Your task to perform on an android device: change keyboard looks Image 0: 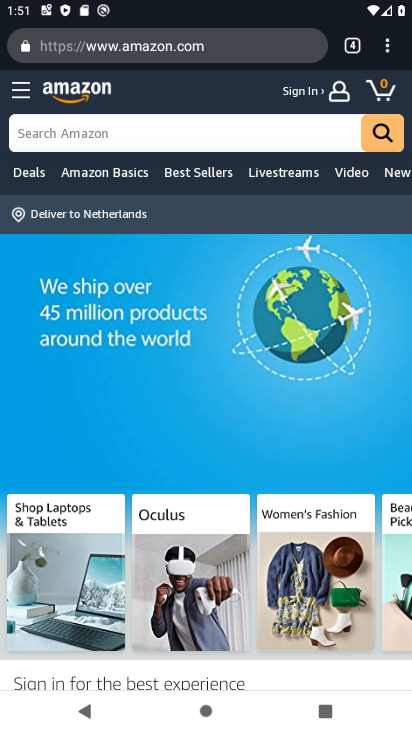
Step 0: press home button
Your task to perform on an android device: change keyboard looks Image 1: 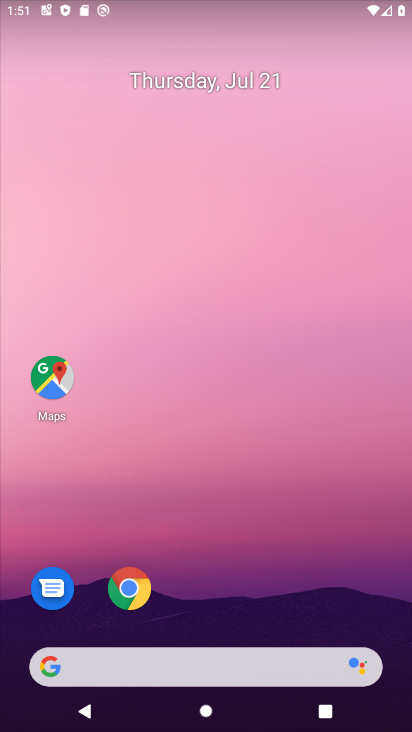
Step 1: drag from (229, 642) to (122, 49)
Your task to perform on an android device: change keyboard looks Image 2: 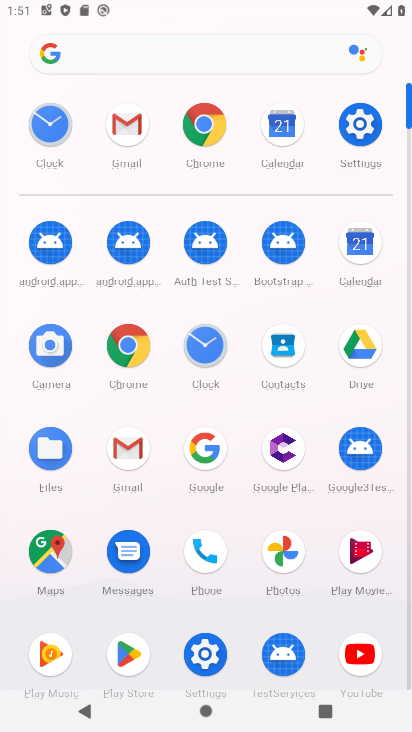
Step 2: click (352, 129)
Your task to perform on an android device: change keyboard looks Image 3: 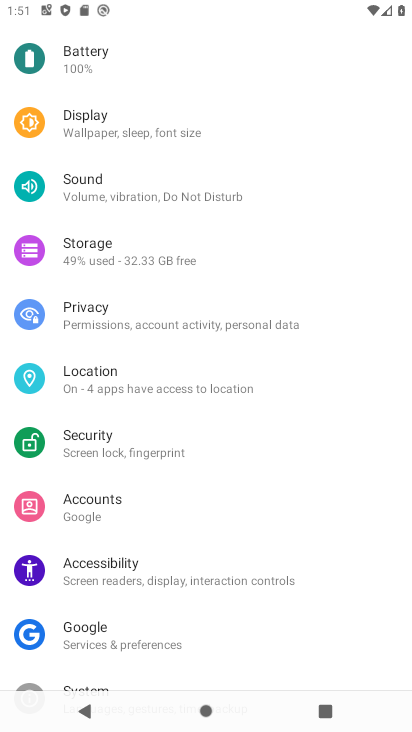
Step 3: drag from (176, 543) to (136, 85)
Your task to perform on an android device: change keyboard looks Image 4: 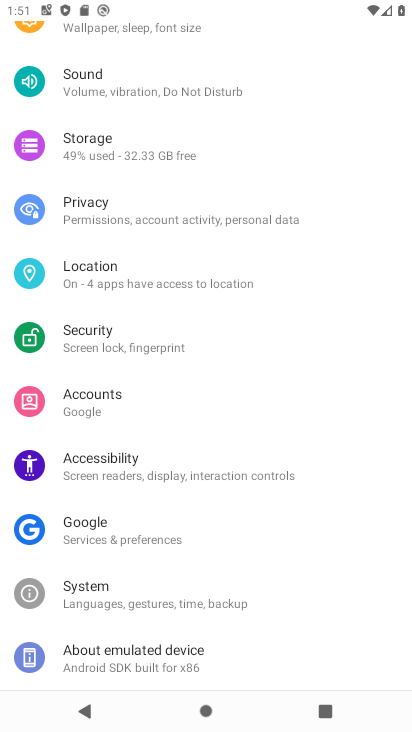
Step 4: click (116, 597)
Your task to perform on an android device: change keyboard looks Image 5: 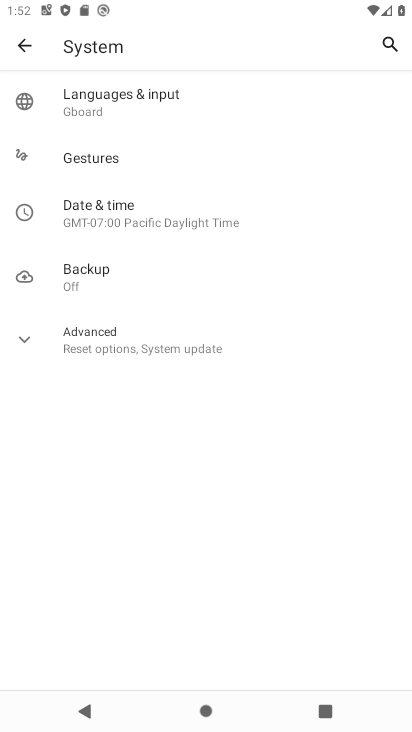
Step 5: click (43, 594)
Your task to perform on an android device: change keyboard looks Image 6: 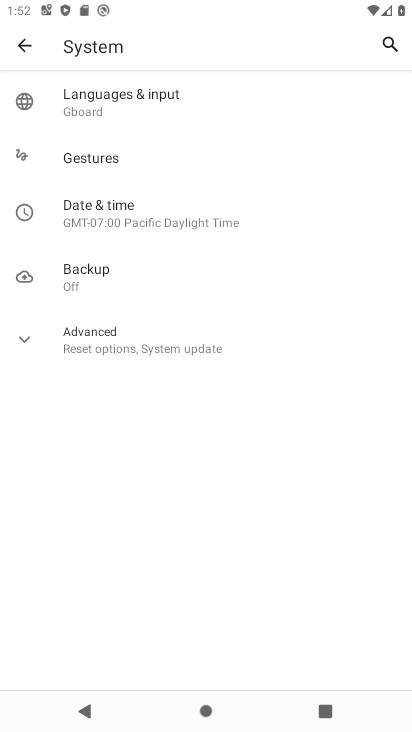
Step 6: click (85, 102)
Your task to perform on an android device: change keyboard looks Image 7: 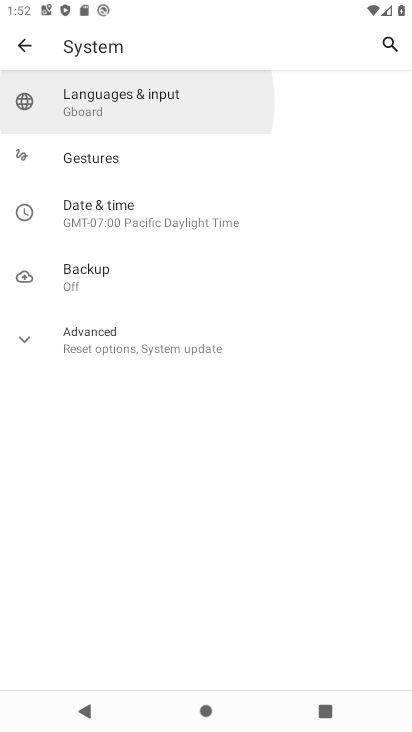
Step 7: click (80, 102)
Your task to perform on an android device: change keyboard looks Image 8: 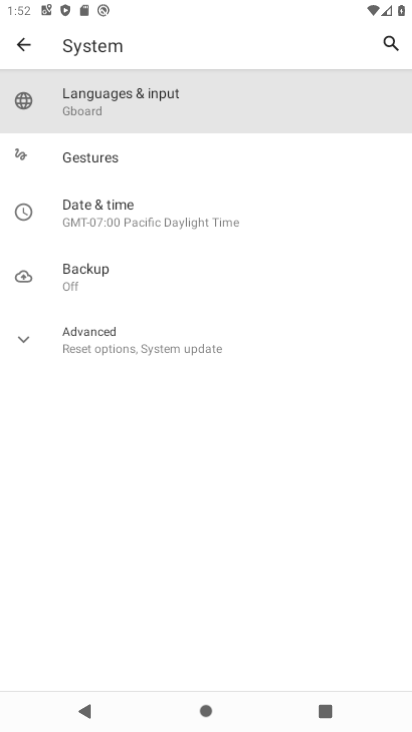
Step 8: click (80, 102)
Your task to perform on an android device: change keyboard looks Image 9: 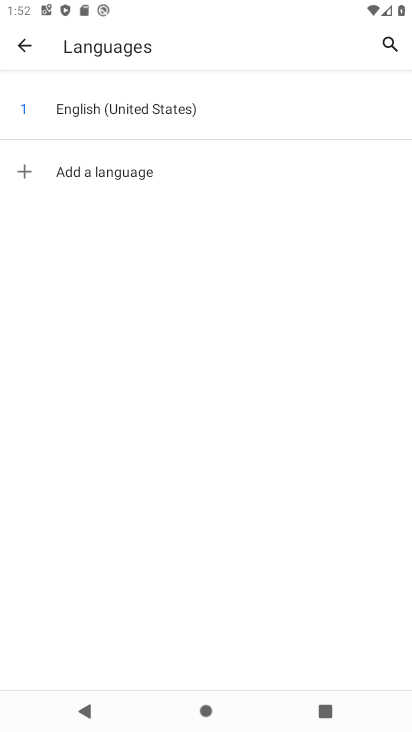
Step 9: click (29, 42)
Your task to perform on an android device: change keyboard looks Image 10: 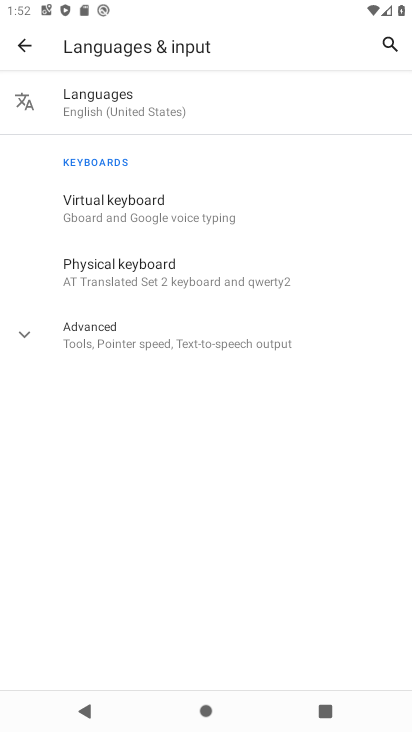
Step 10: click (110, 204)
Your task to perform on an android device: change keyboard looks Image 11: 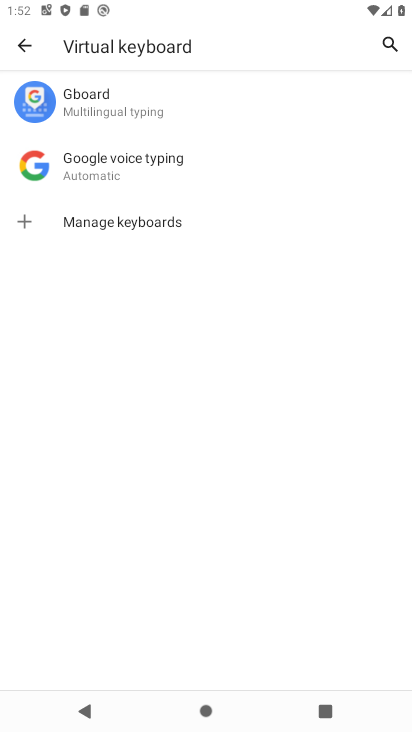
Step 11: click (103, 122)
Your task to perform on an android device: change keyboard looks Image 12: 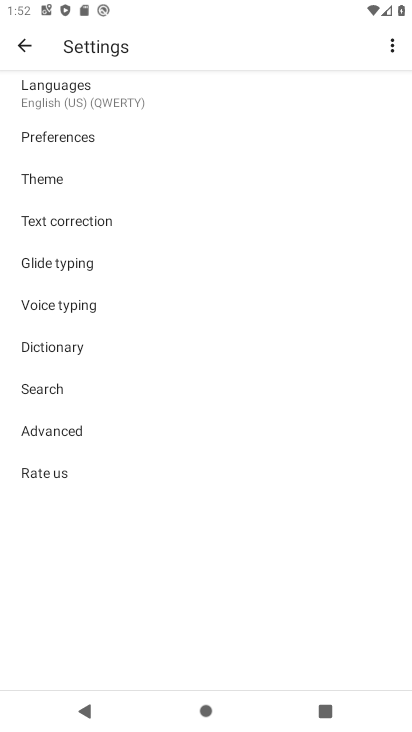
Step 12: click (49, 180)
Your task to perform on an android device: change keyboard looks Image 13: 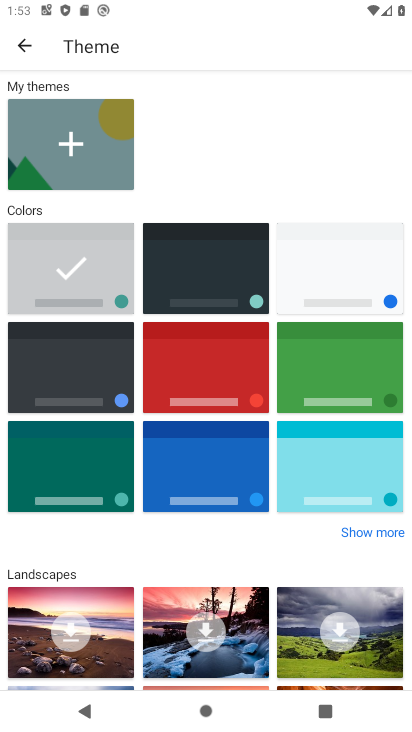
Step 13: click (176, 258)
Your task to perform on an android device: change keyboard looks Image 14: 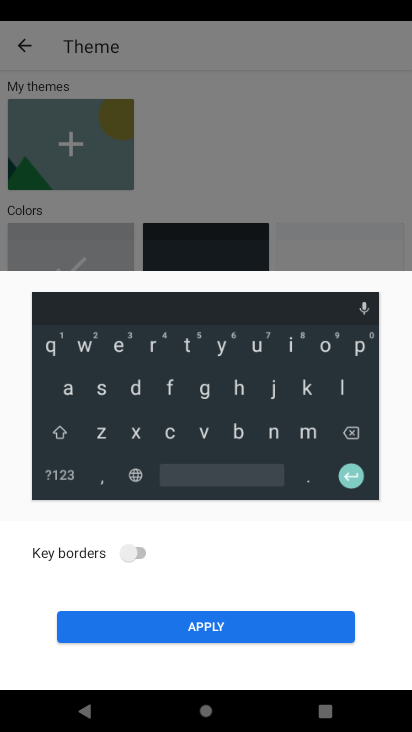
Step 14: click (253, 634)
Your task to perform on an android device: change keyboard looks Image 15: 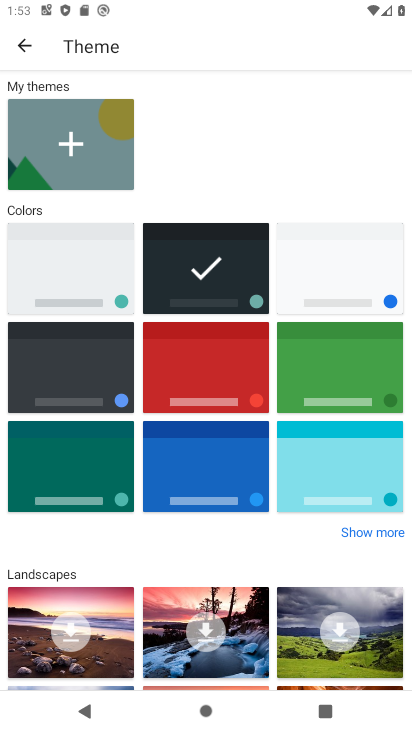
Step 15: task complete